Your task to perform on an android device: What's the weather today? Image 0: 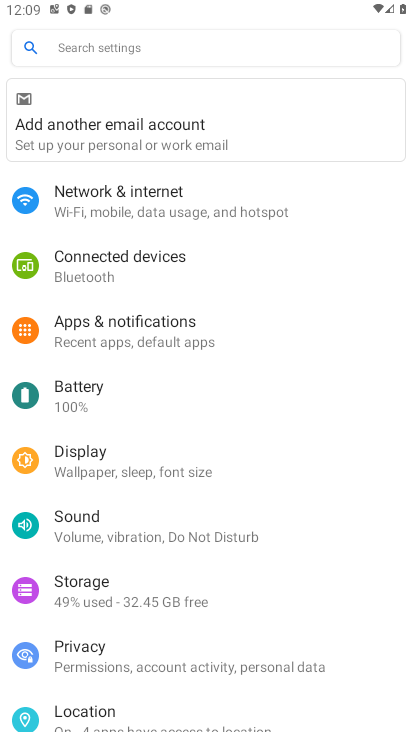
Step 0: press home button
Your task to perform on an android device: What's the weather today? Image 1: 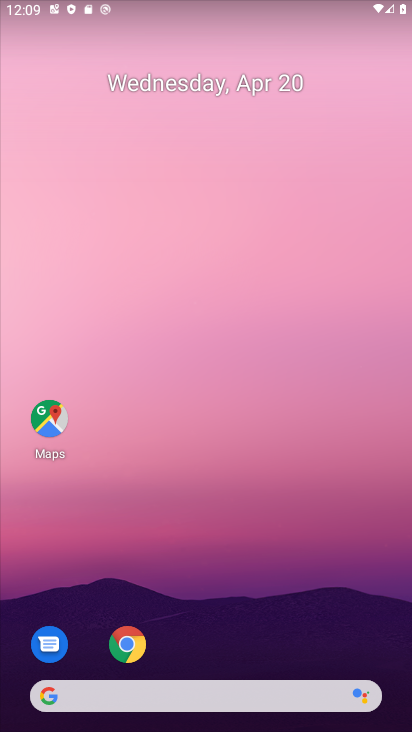
Step 1: click (49, 692)
Your task to perform on an android device: What's the weather today? Image 2: 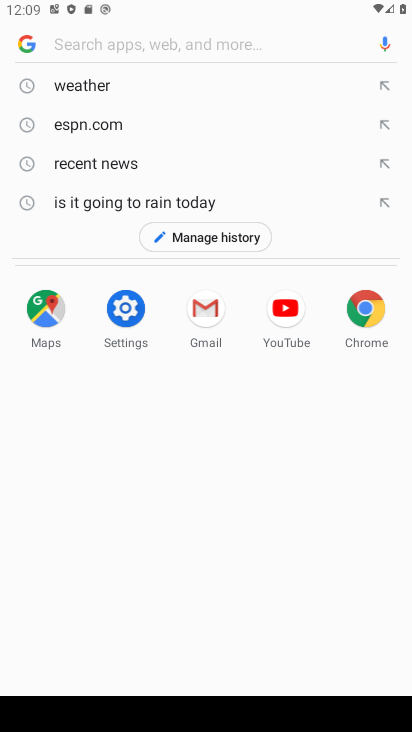
Step 2: click (163, 85)
Your task to perform on an android device: What's the weather today? Image 3: 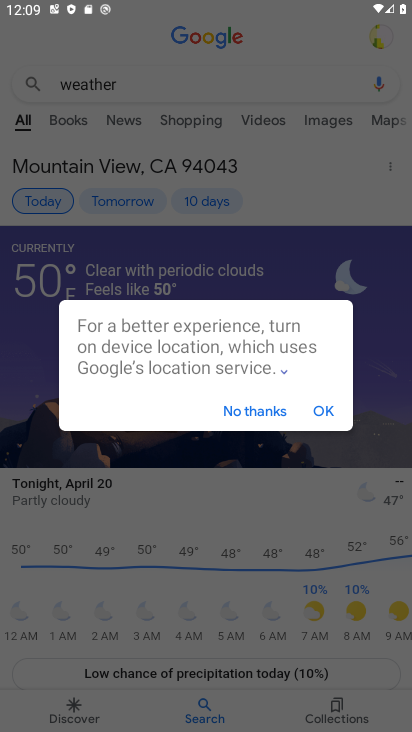
Step 3: click (260, 402)
Your task to perform on an android device: What's the weather today? Image 4: 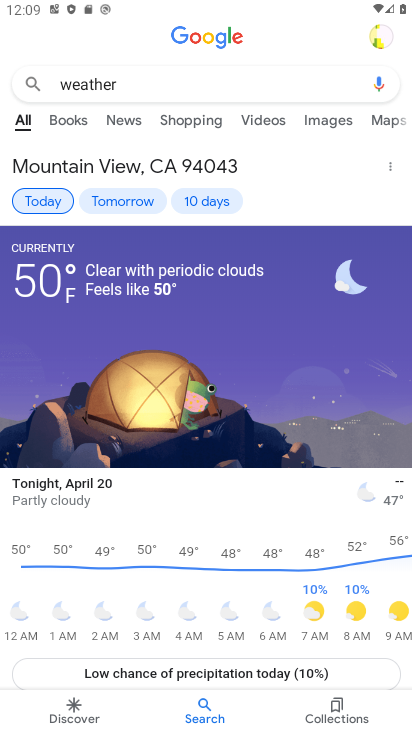
Step 4: task complete